Your task to perform on an android device: delete browsing data in the chrome app Image 0: 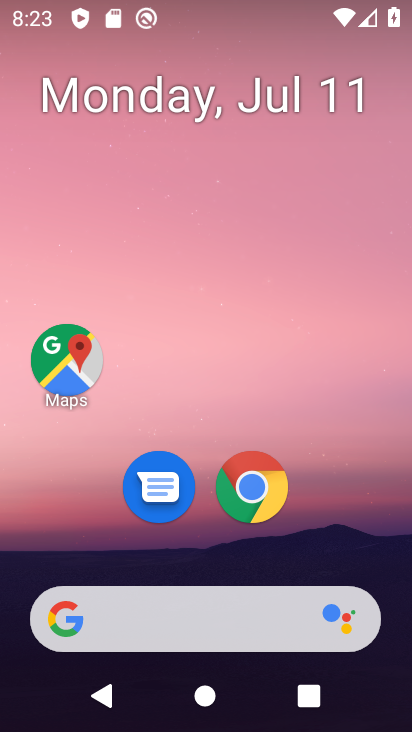
Step 0: click (255, 479)
Your task to perform on an android device: delete browsing data in the chrome app Image 1: 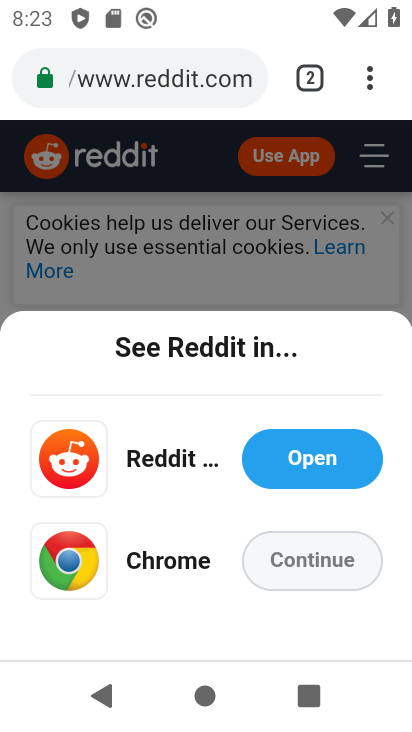
Step 1: drag from (373, 70) to (149, 428)
Your task to perform on an android device: delete browsing data in the chrome app Image 2: 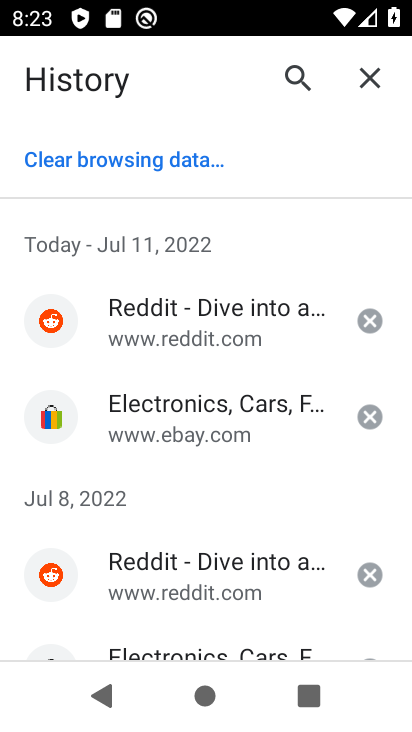
Step 2: click (132, 167)
Your task to perform on an android device: delete browsing data in the chrome app Image 3: 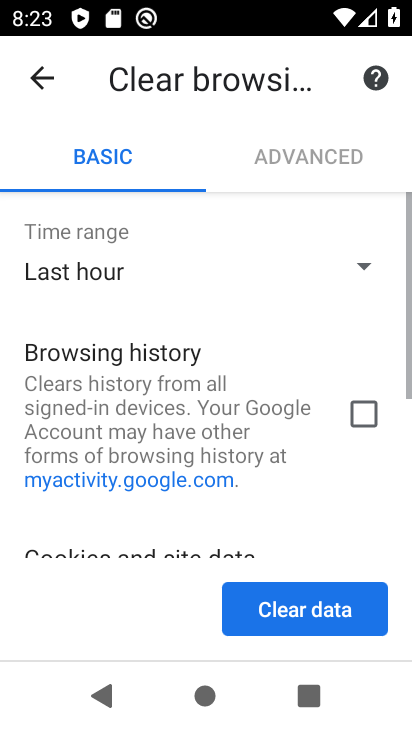
Step 3: click (369, 419)
Your task to perform on an android device: delete browsing data in the chrome app Image 4: 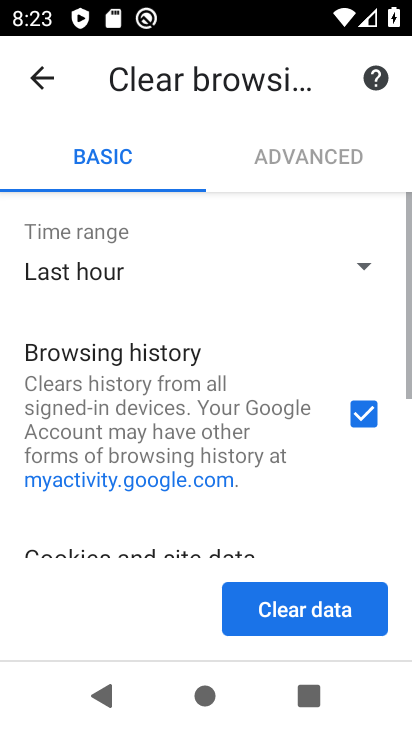
Step 4: drag from (189, 532) to (286, 90)
Your task to perform on an android device: delete browsing data in the chrome app Image 5: 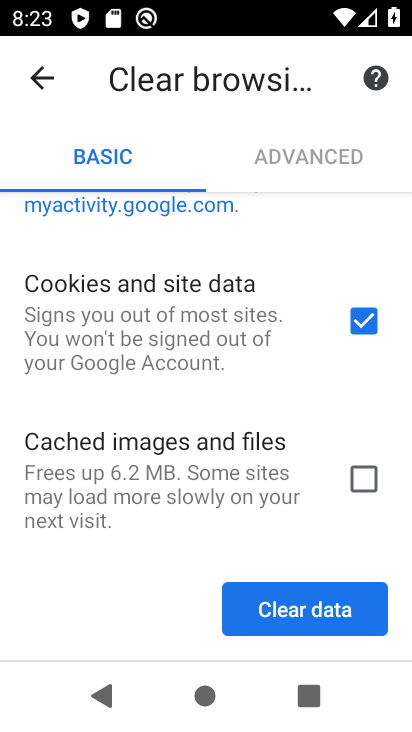
Step 5: click (364, 489)
Your task to perform on an android device: delete browsing data in the chrome app Image 6: 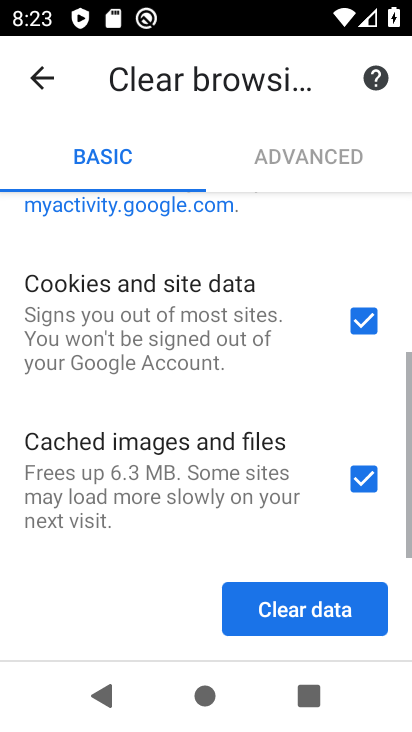
Step 6: click (283, 612)
Your task to perform on an android device: delete browsing data in the chrome app Image 7: 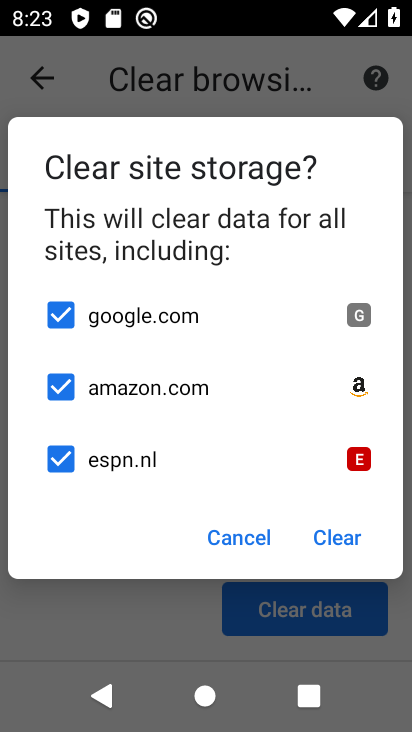
Step 7: click (341, 539)
Your task to perform on an android device: delete browsing data in the chrome app Image 8: 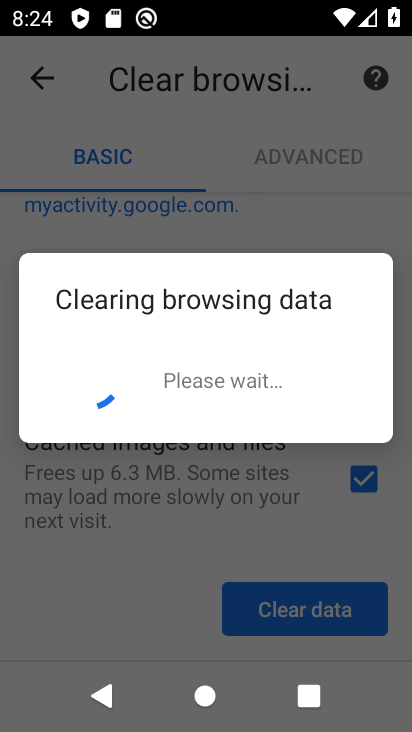
Step 8: task complete